Your task to perform on an android device: snooze an email in the gmail app Image 0: 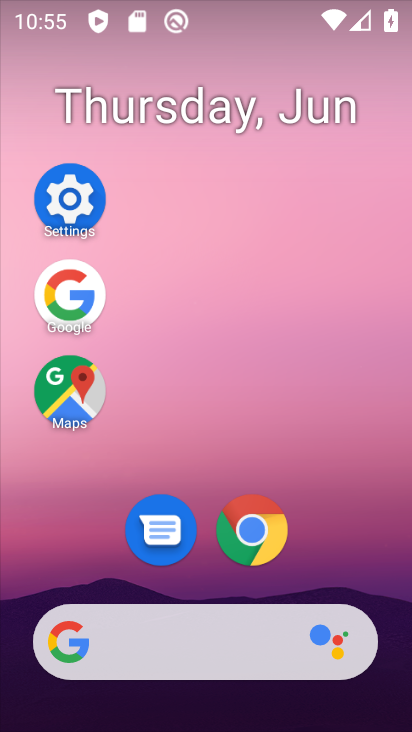
Step 0: drag from (334, 537) to (295, 124)
Your task to perform on an android device: snooze an email in the gmail app Image 1: 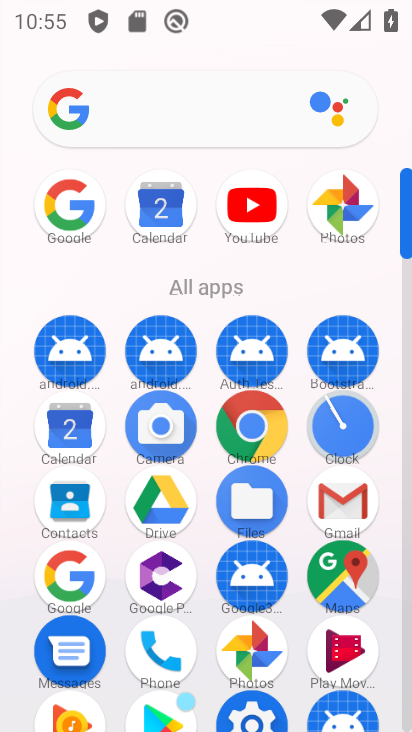
Step 1: drag from (357, 500) to (162, 294)
Your task to perform on an android device: snooze an email in the gmail app Image 2: 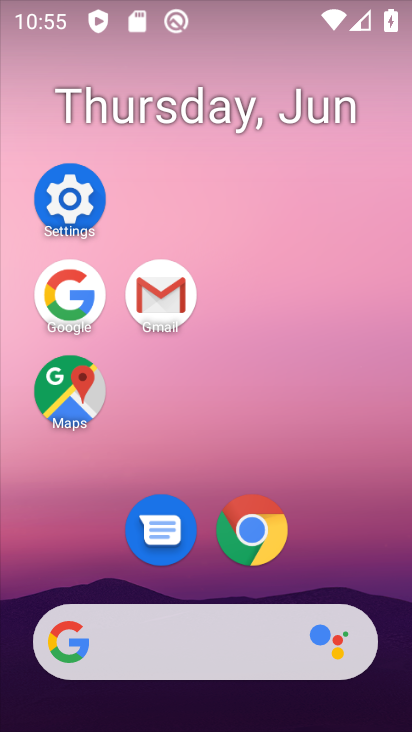
Step 2: click (171, 287)
Your task to perform on an android device: snooze an email in the gmail app Image 3: 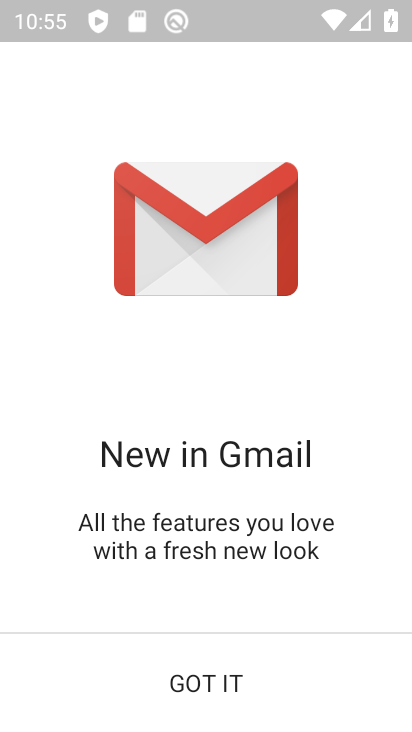
Step 3: click (213, 689)
Your task to perform on an android device: snooze an email in the gmail app Image 4: 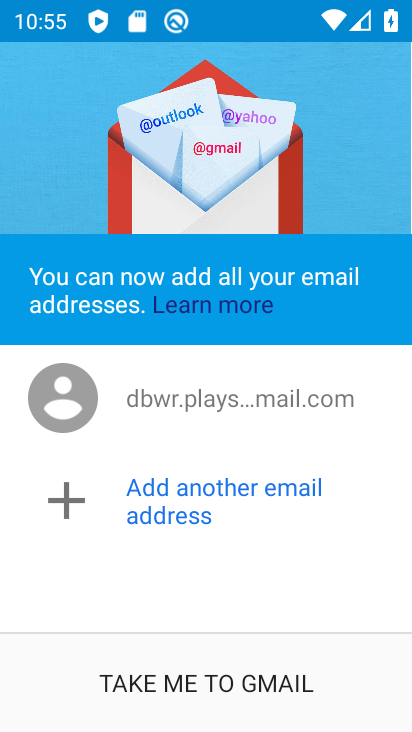
Step 4: click (229, 666)
Your task to perform on an android device: snooze an email in the gmail app Image 5: 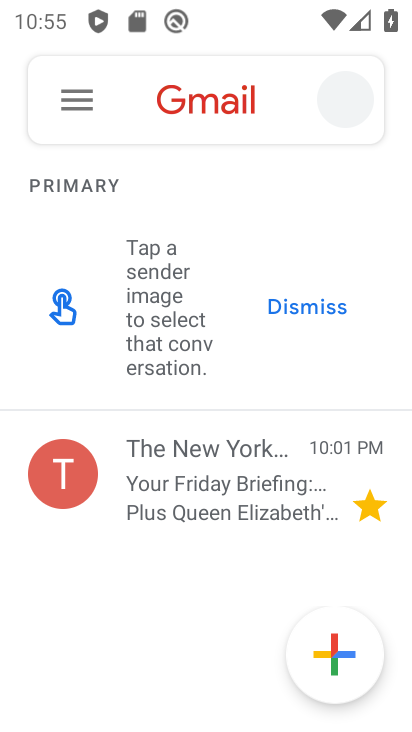
Step 5: click (78, 100)
Your task to perform on an android device: snooze an email in the gmail app Image 6: 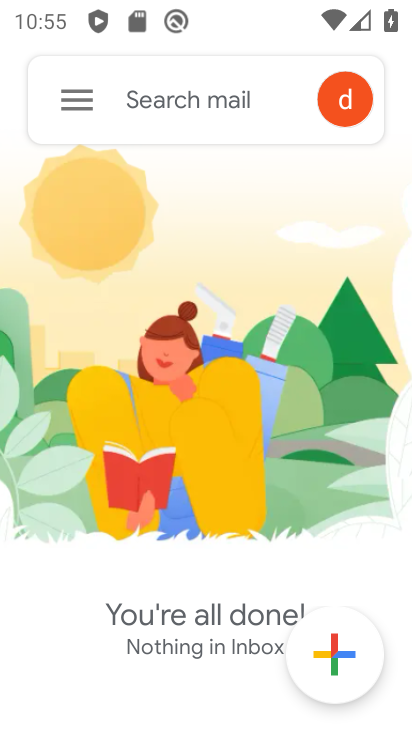
Step 6: click (91, 104)
Your task to perform on an android device: snooze an email in the gmail app Image 7: 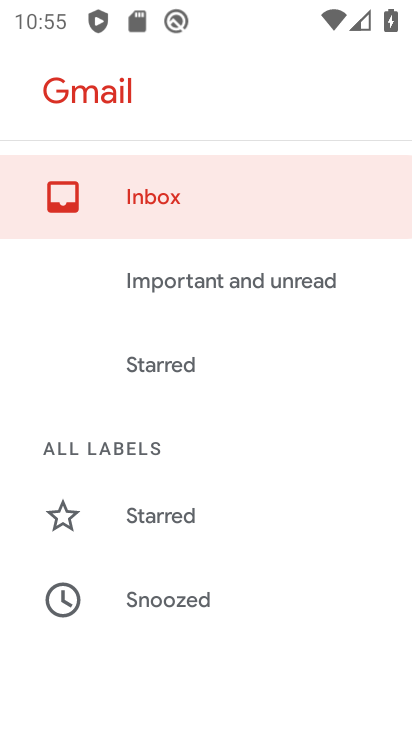
Step 7: drag from (240, 553) to (272, 166)
Your task to perform on an android device: snooze an email in the gmail app Image 8: 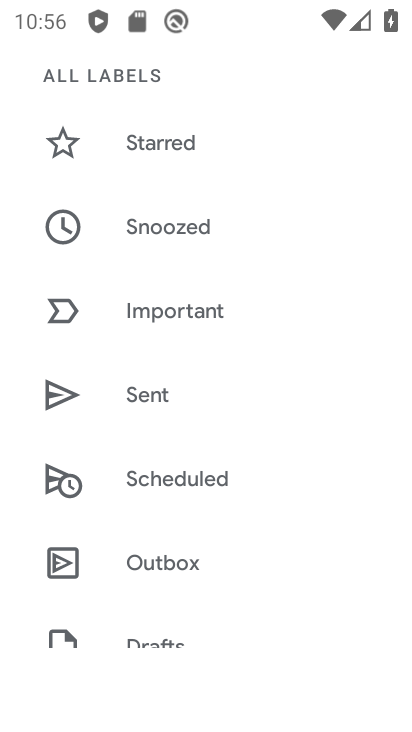
Step 8: drag from (248, 541) to (254, 172)
Your task to perform on an android device: snooze an email in the gmail app Image 9: 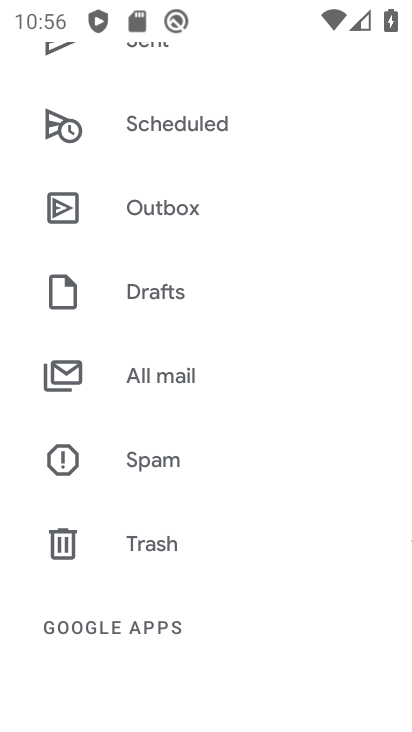
Step 9: click (221, 372)
Your task to perform on an android device: snooze an email in the gmail app Image 10: 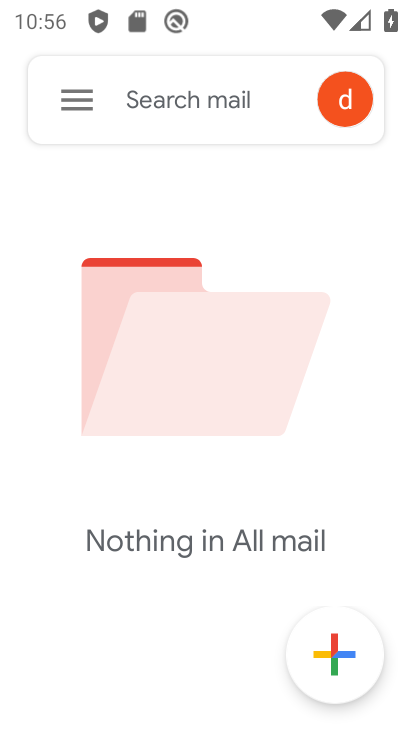
Step 10: task complete